Your task to perform on an android device: choose inbox layout in the gmail app Image 0: 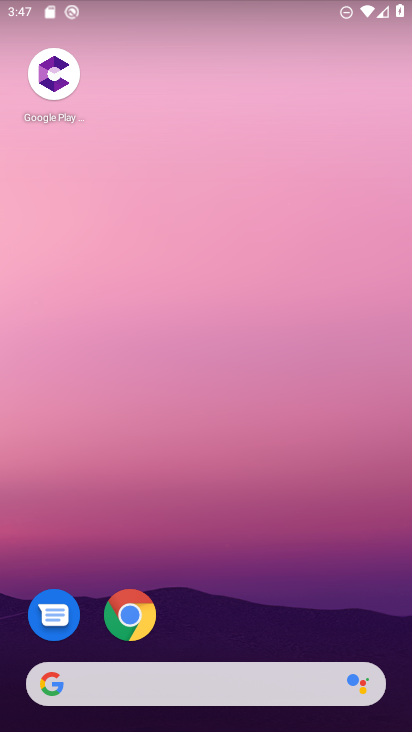
Step 0: drag from (232, 596) to (198, 40)
Your task to perform on an android device: choose inbox layout in the gmail app Image 1: 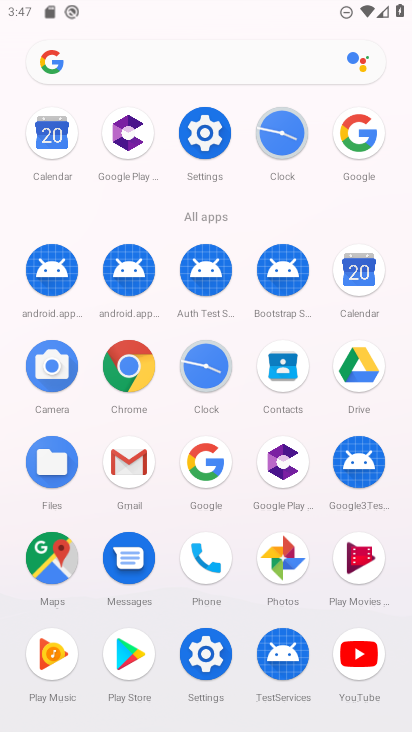
Step 1: click (138, 456)
Your task to perform on an android device: choose inbox layout in the gmail app Image 2: 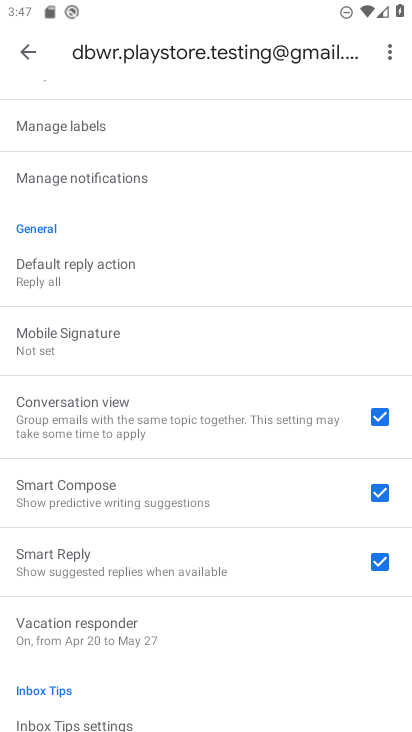
Step 2: drag from (191, 211) to (129, 544)
Your task to perform on an android device: choose inbox layout in the gmail app Image 3: 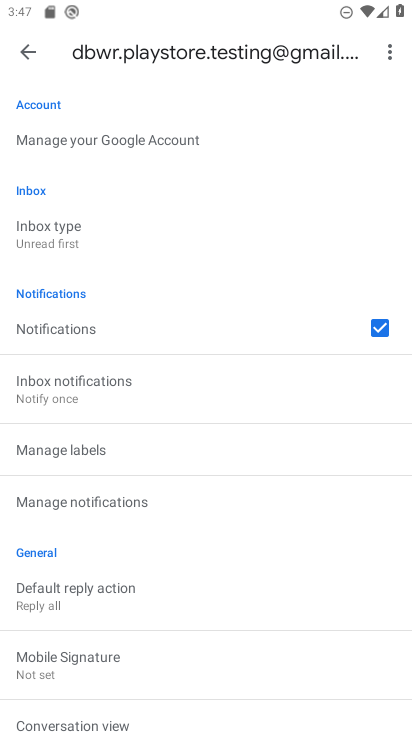
Step 3: click (48, 231)
Your task to perform on an android device: choose inbox layout in the gmail app Image 4: 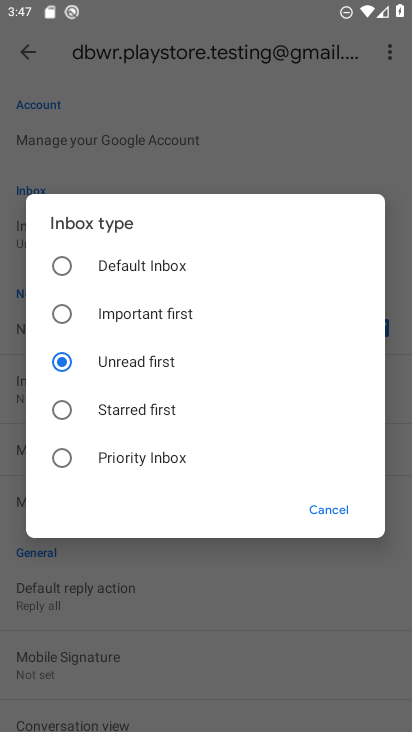
Step 4: click (59, 452)
Your task to perform on an android device: choose inbox layout in the gmail app Image 5: 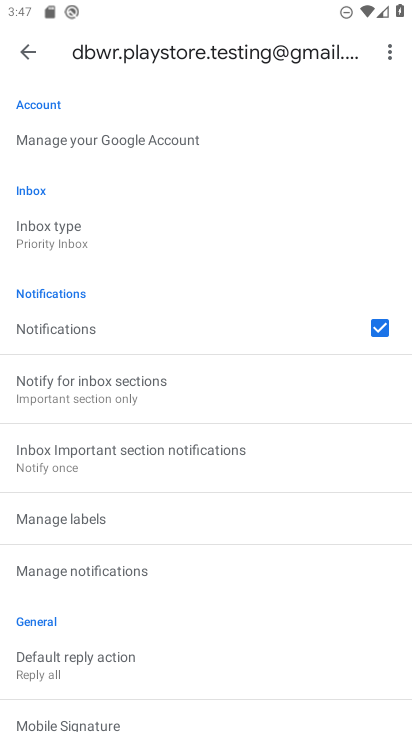
Step 5: task complete